Your task to perform on an android device: check storage Image 0: 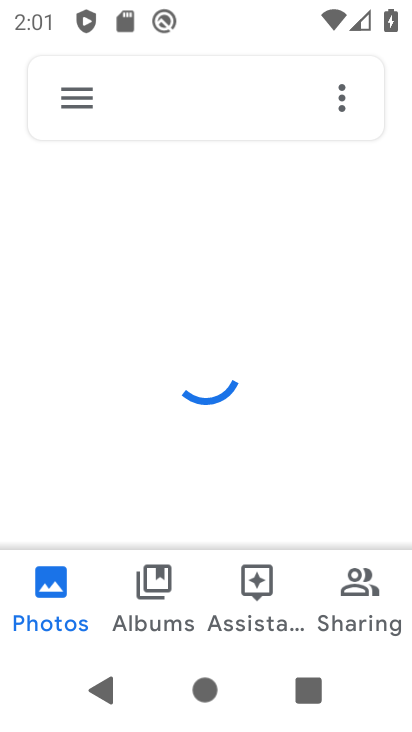
Step 0: press home button
Your task to perform on an android device: check storage Image 1: 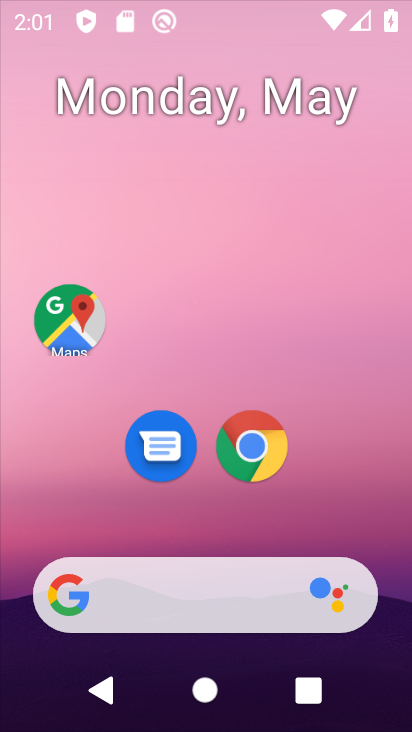
Step 1: drag from (242, 588) to (226, 49)
Your task to perform on an android device: check storage Image 2: 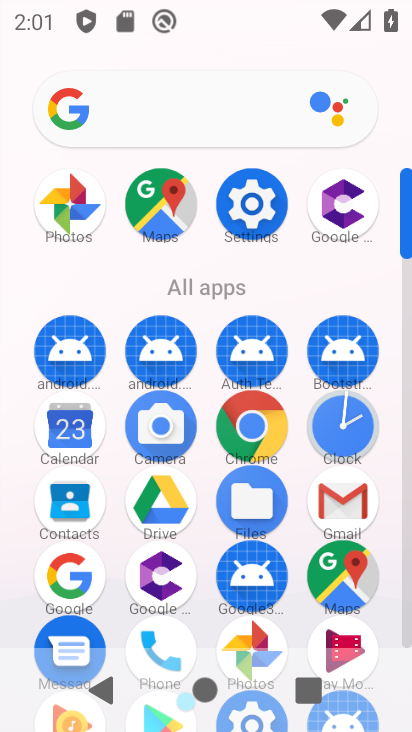
Step 2: click (240, 229)
Your task to perform on an android device: check storage Image 3: 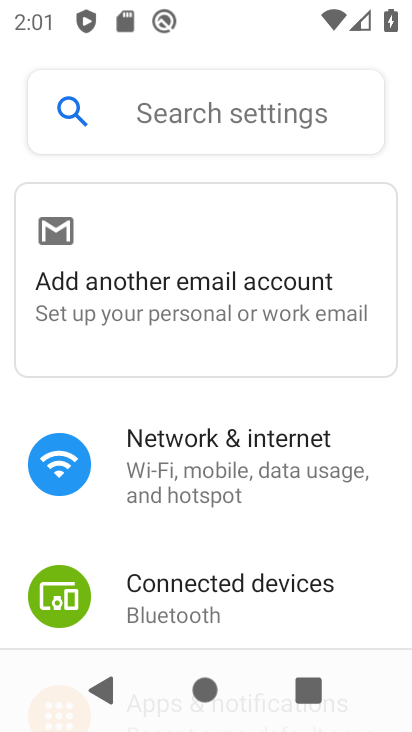
Step 3: drag from (248, 541) to (202, 92)
Your task to perform on an android device: check storage Image 4: 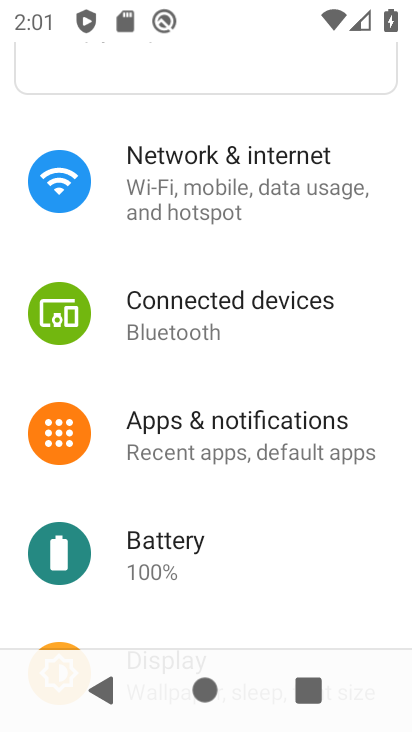
Step 4: drag from (205, 600) to (165, 52)
Your task to perform on an android device: check storage Image 5: 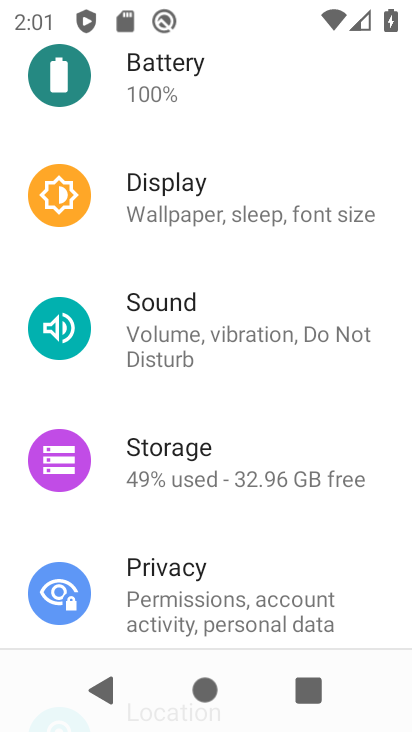
Step 5: click (203, 445)
Your task to perform on an android device: check storage Image 6: 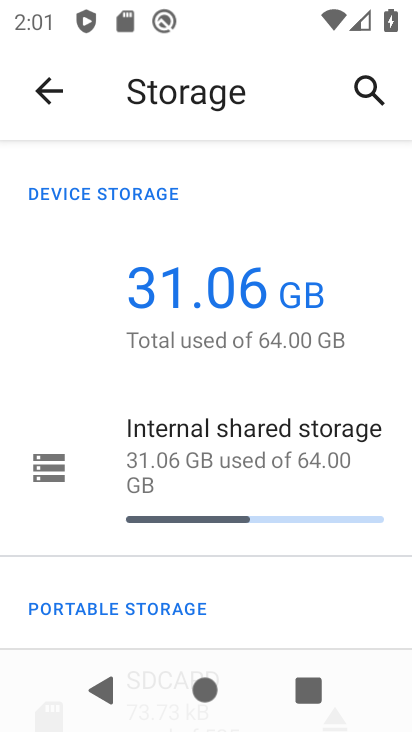
Step 6: click (255, 452)
Your task to perform on an android device: check storage Image 7: 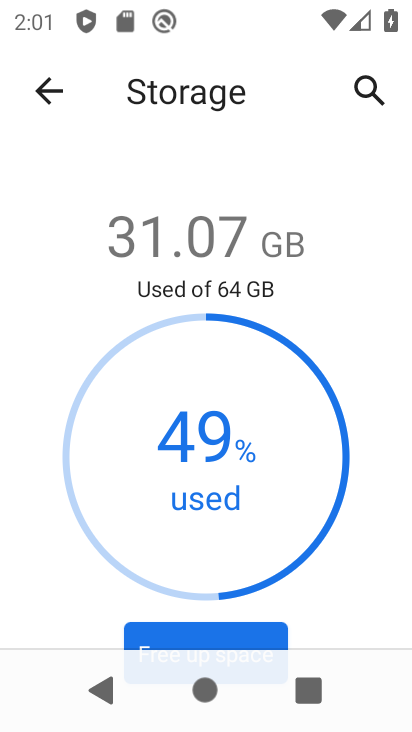
Step 7: task complete